Your task to perform on an android device: Search for "sony triple a" on amazon, select the first entry, add it to the cart, then select checkout. Image 0: 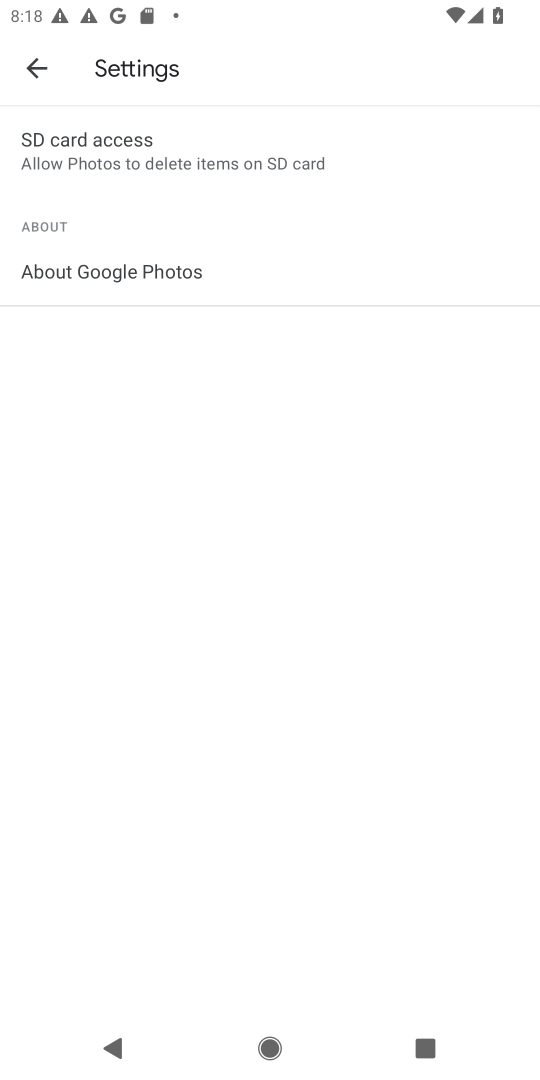
Step 0: press home button
Your task to perform on an android device: Search for "sony triple a" on amazon, select the first entry, add it to the cart, then select checkout. Image 1: 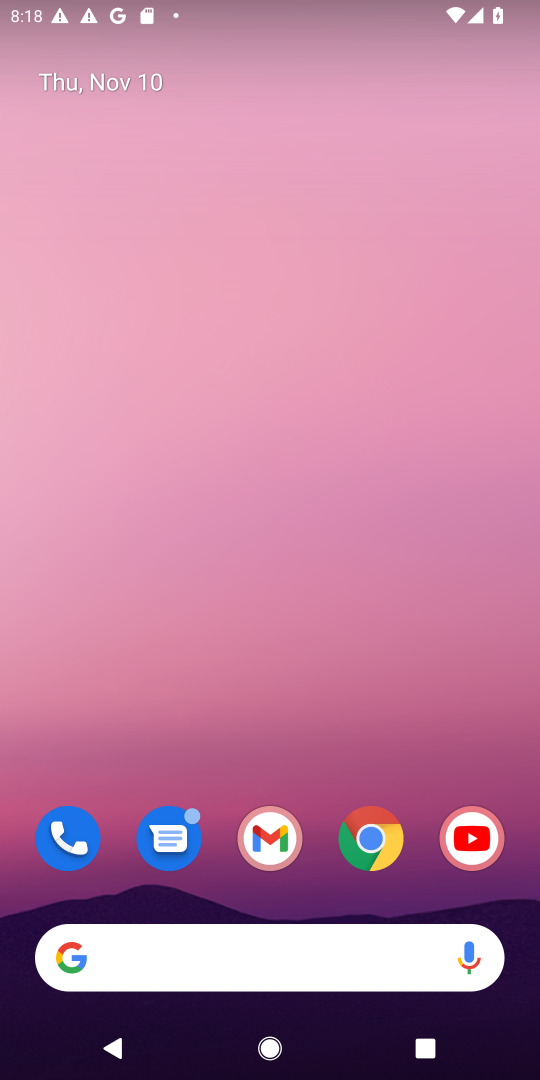
Step 1: drag from (313, 915) to (305, 187)
Your task to perform on an android device: Search for "sony triple a" on amazon, select the first entry, add it to the cart, then select checkout. Image 2: 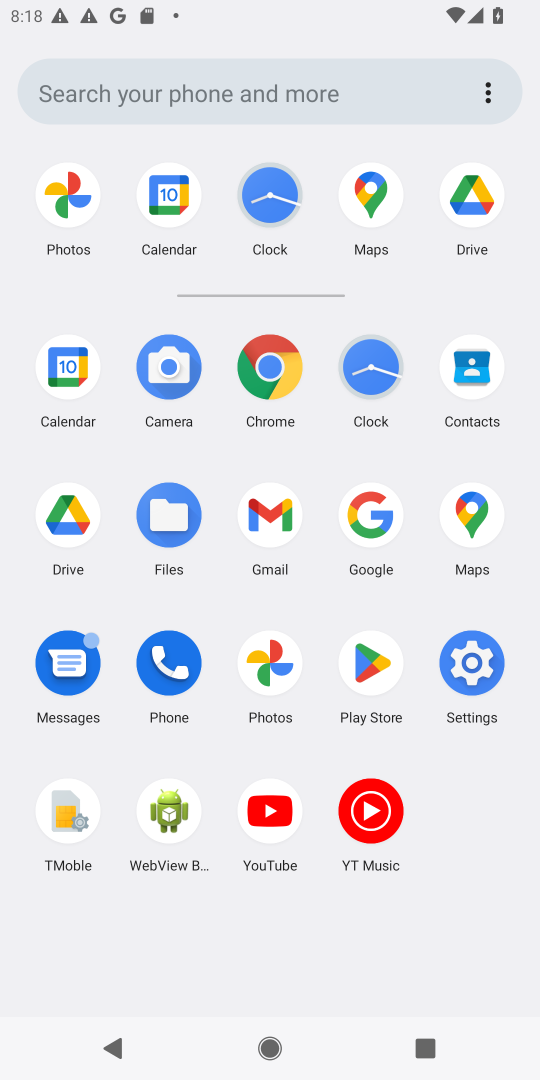
Step 2: click (277, 376)
Your task to perform on an android device: Search for "sony triple a" on amazon, select the first entry, add it to the cart, then select checkout. Image 3: 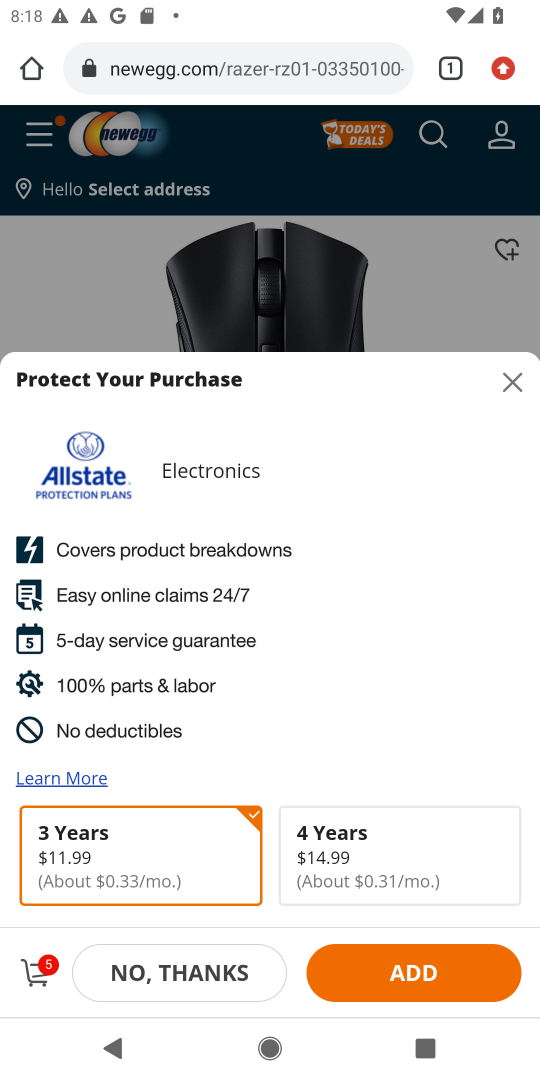
Step 3: click (331, 72)
Your task to perform on an android device: Search for "sony triple a" on amazon, select the first entry, add it to the cart, then select checkout. Image 4: 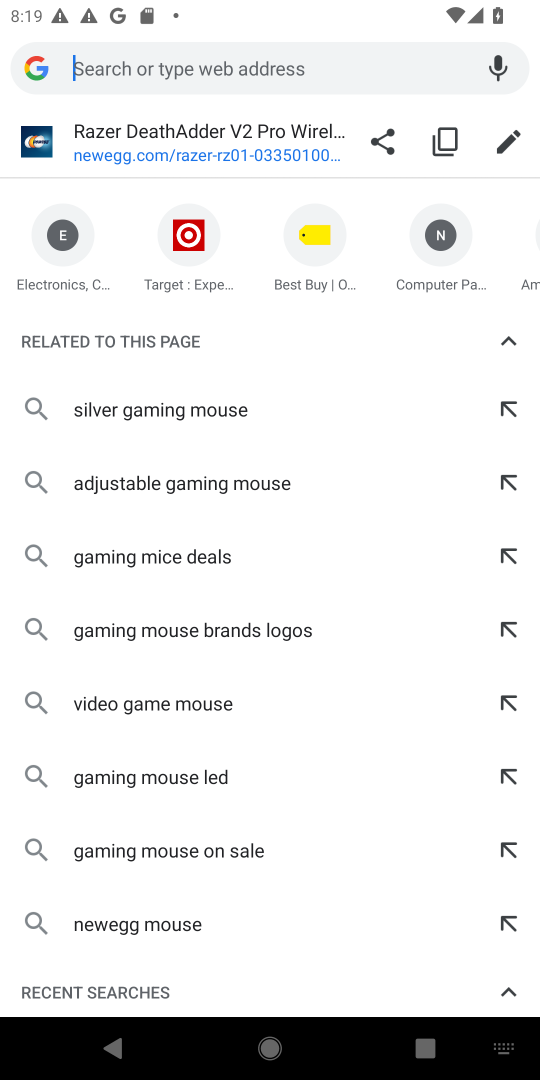
Step 4: type "amazon.com"
Your task to perform on an android device: Search for "sony triple a" on amazon, select the first entry, add it to the cart, then select checkout. Image 5: 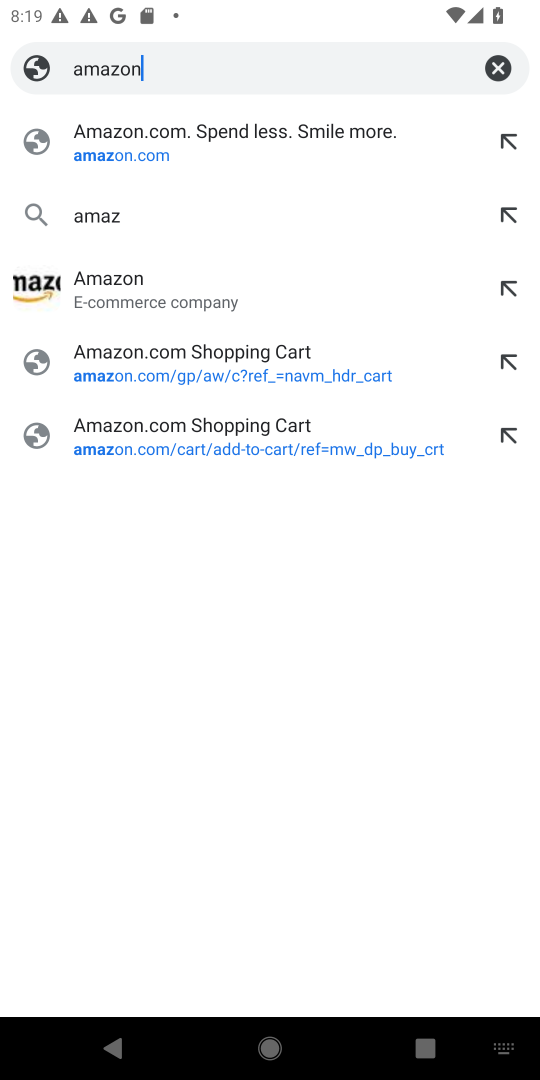
Step 5: press enter
Your task to perform on an android device: Search for "sony triple a" on amazon, select the first entry, add it to the cart, then select checkout. Image 6: 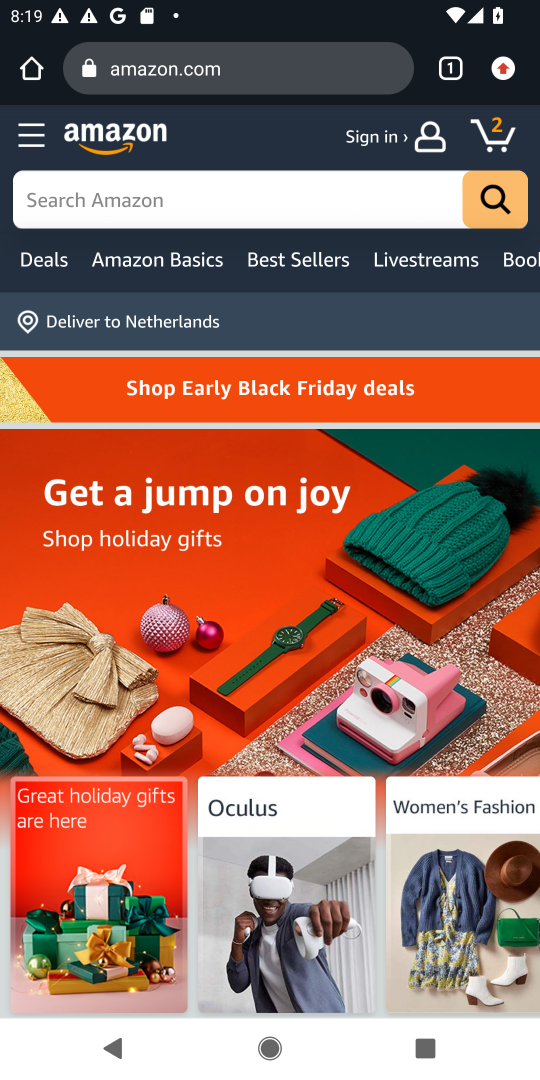
Step 6: click (293, 209)
Your task to perform on an android device: Search for "sony triple a" on amazon, select the first entry, add it to the cart, then select checkout. Image 7: 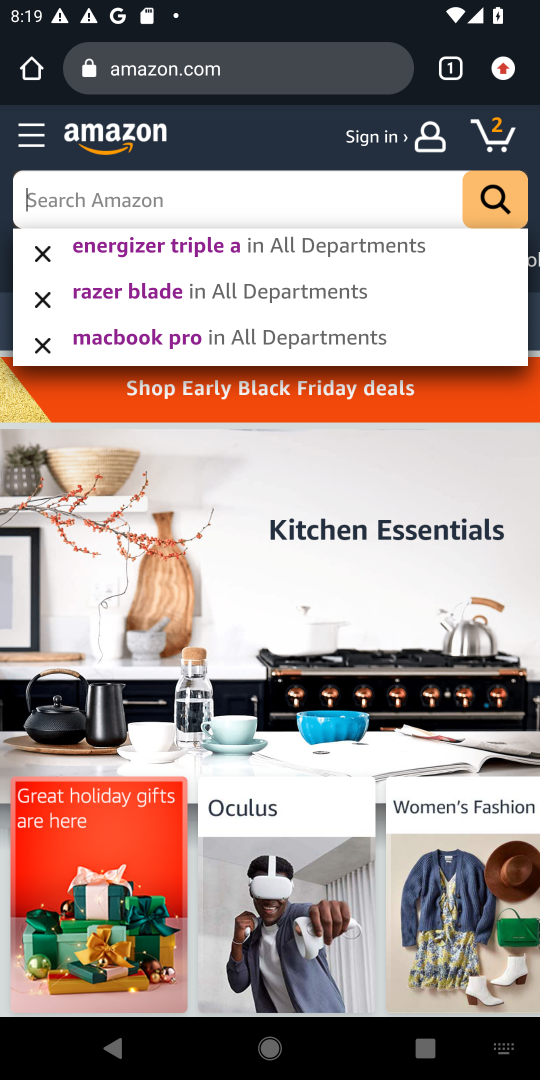
Step 7: type "sony triple a"
Your task to perform on an android device: Search for "sony triple a" on amazon, select the first entry, add it to the cart, then select checkout. Image 8: 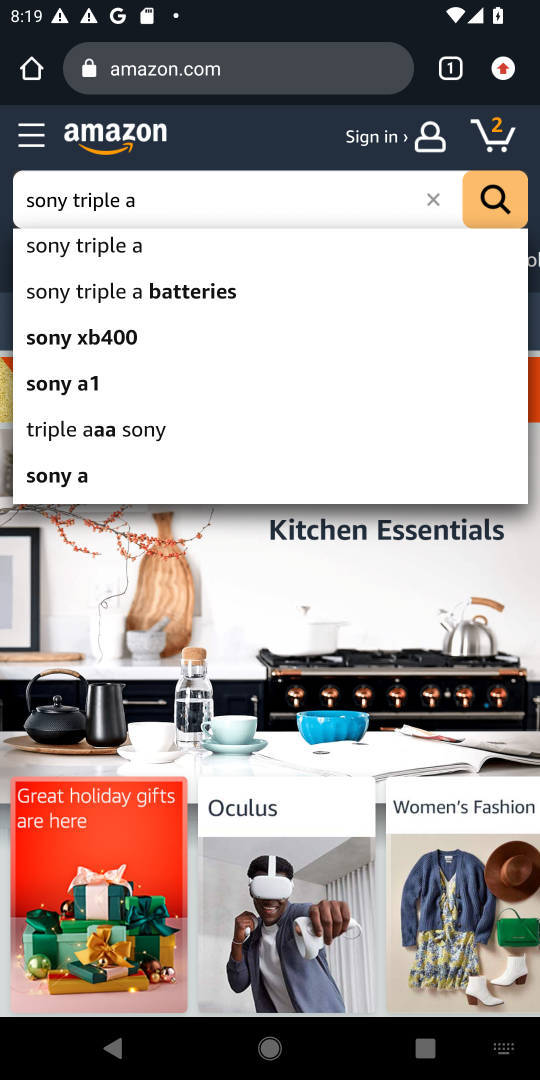
Step 8: press enter
Your task to perform on an android device: Search for "sony triple a" on amazon, select the first entry, add it to the cart, then select checkout. Image 9: 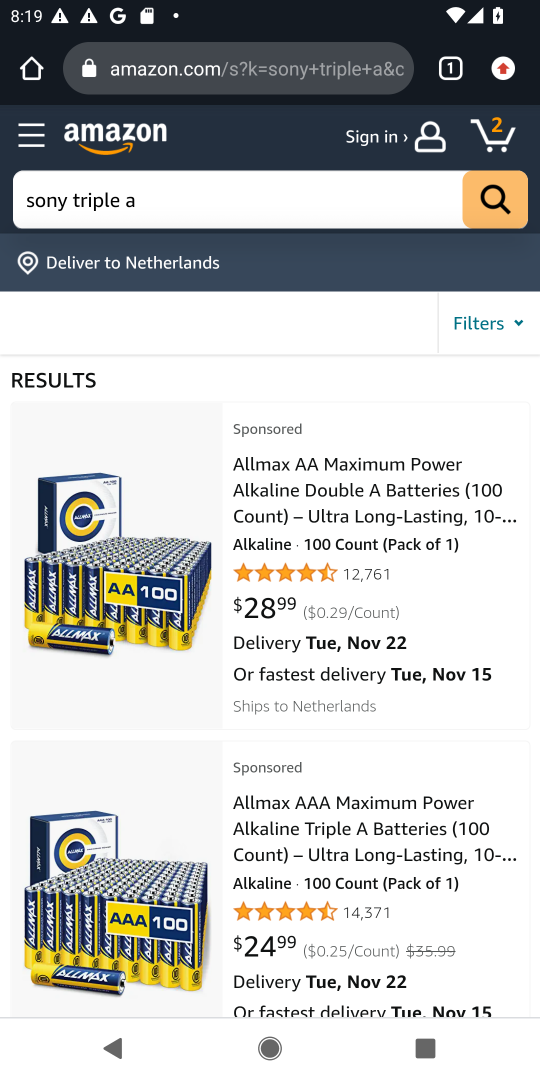
Step 9: drag from (257, 593) to (325, 171)
Your task to perform on an android device: Search for "sony triple a" on amazon, select the first entry, add it to the cart, then select checkout. Image 10: 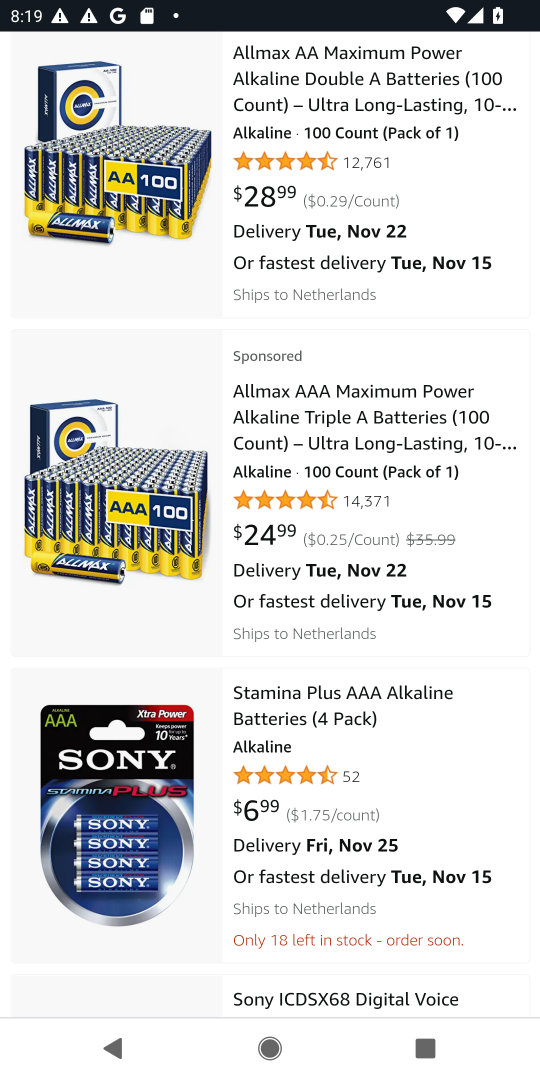
Step 10: click (295, 728)
Your task to perform on an android device: Search for "sony triple a" on amazon, select the first entry, add it to the cart, then select checkout. Image 11: 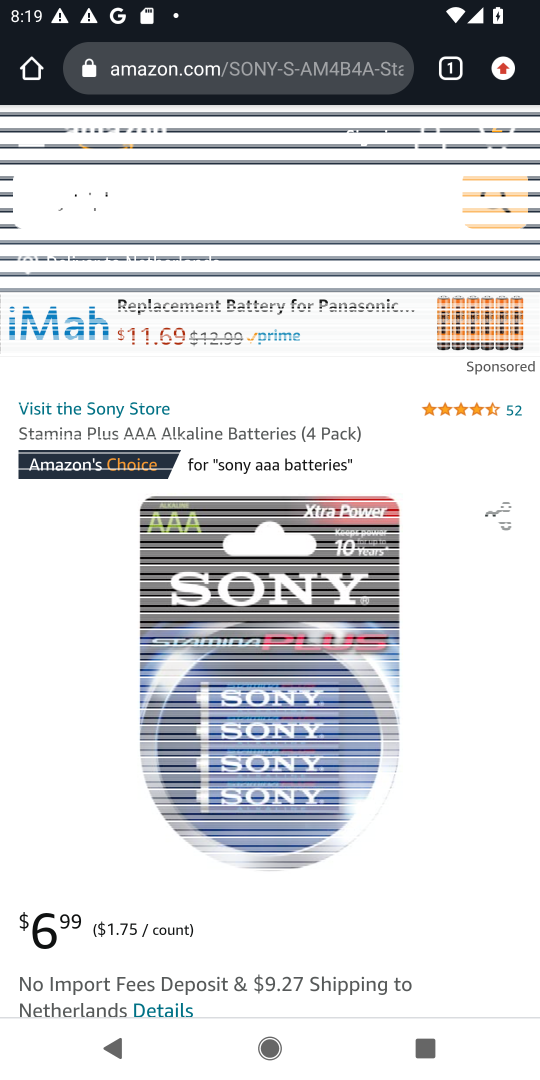
Step 11: drag from (204, 793) to (254, 38)
Your task to perform on an android device: Search for "sony triple a" on amazon, select the first entry, add it to the cart, then select checkout. Image 12: 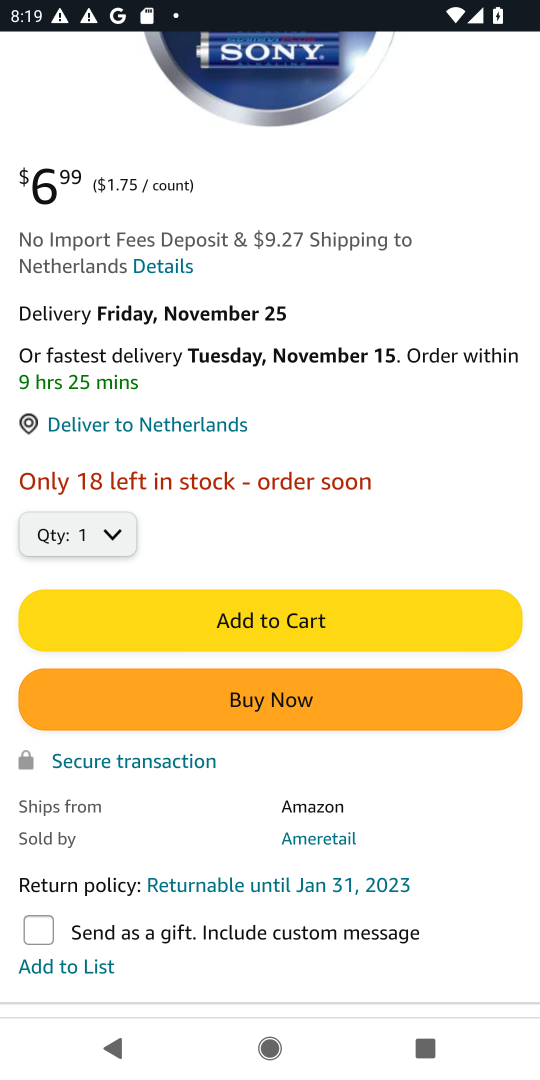
Step 12: click (349, 628)
Your task to perform on an android device: Search for "sony triple a" on amazon, select the first entry, add it to the cart, then select checkout. Image 13: 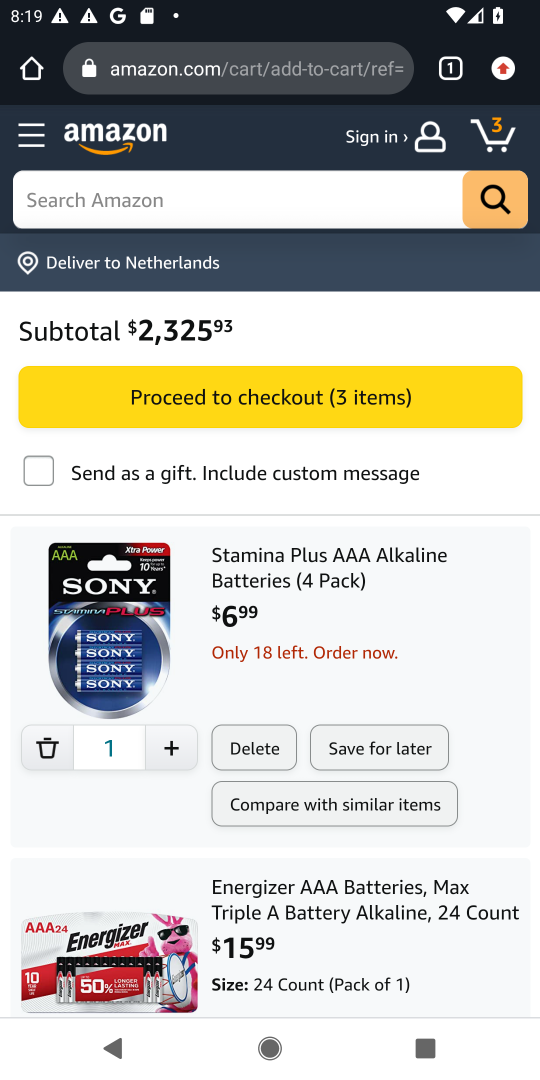
Step 13: click (234, 396)
Your task to perform on an android device: Search for "sony triple a" on amazon, select the first entry, add it to the cart, then select checkout. Image 14: 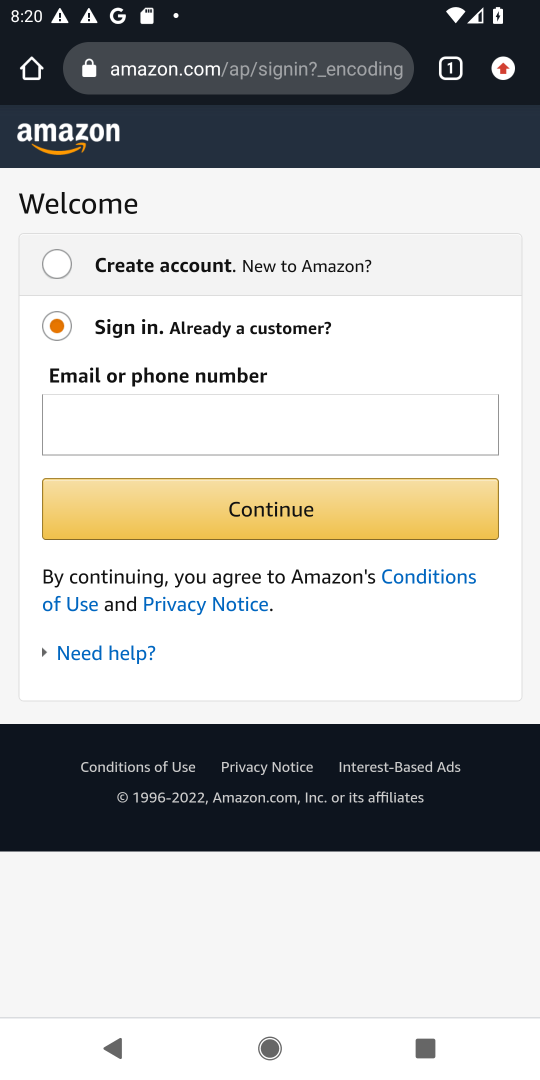
Step 14: task complete